Your task to perform on an android device: Do I have any events today? Image 0: 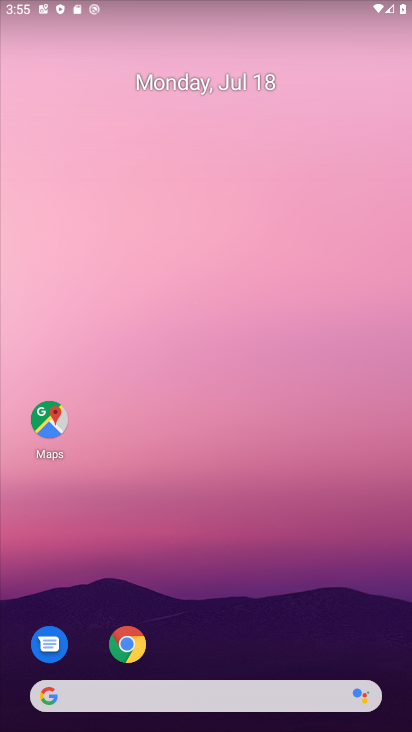
Step 0: drag from (386, 642) to (354, 204)
Your task to perform on an android device: Do I have any events today? Image 1: 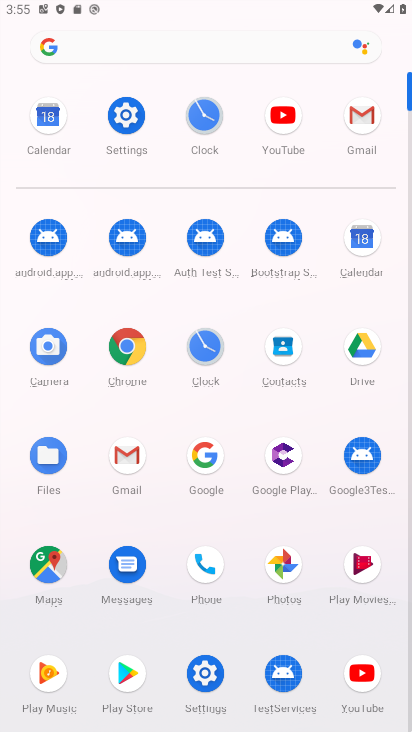
Step 1: click (362, 238)
Your task to perform on an android device: Do I have any events today? Image 2: 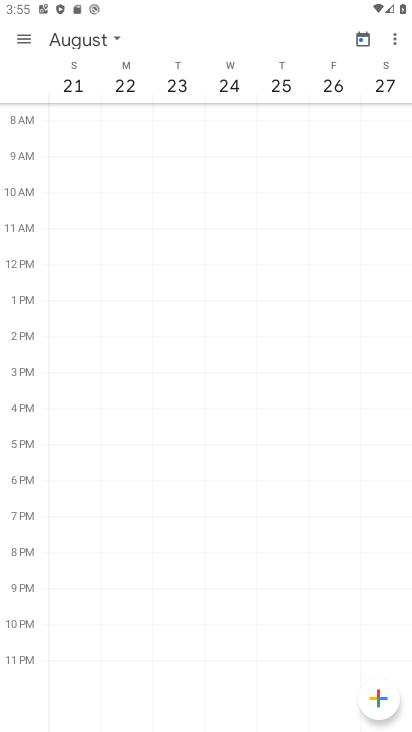
Step 2: click (22, 36)
Your task to perform on an android device: Do I have any events today? Image 3: 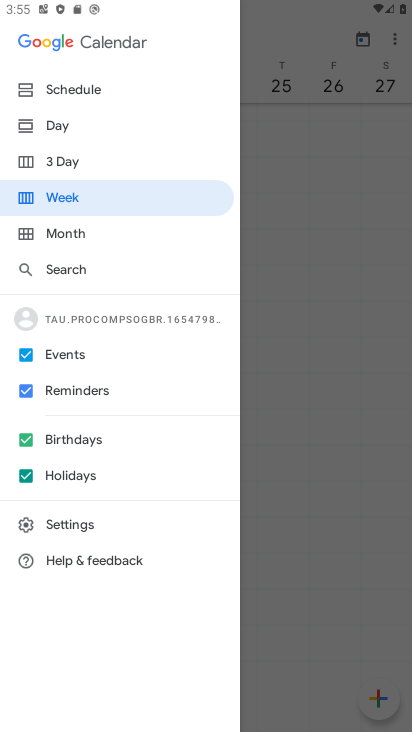
Step 3: click (47, 122)
Your task to perform on an android device: Do I have any events today? Image 4: 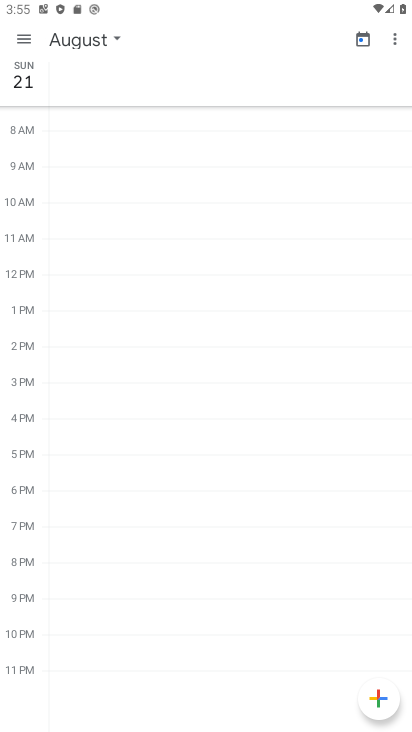
Step 4: click (116, 33)
Your task to perform on an android device: Do I have any events today? Image 5: 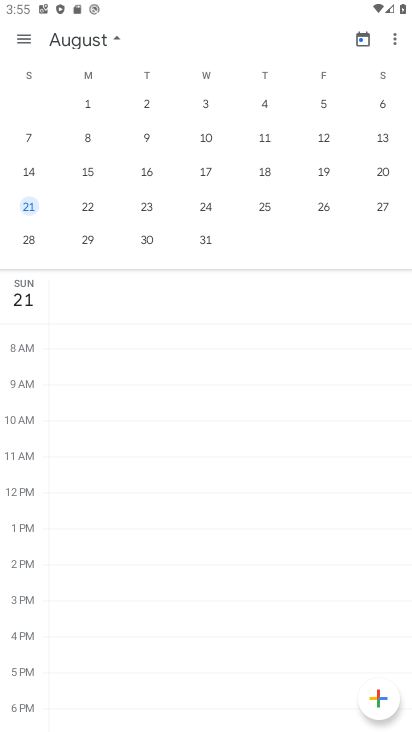
Step 5: drag from (26, 204) to (382, 185)
Your task to perform on an android device: Do I have any events today? Image 6: 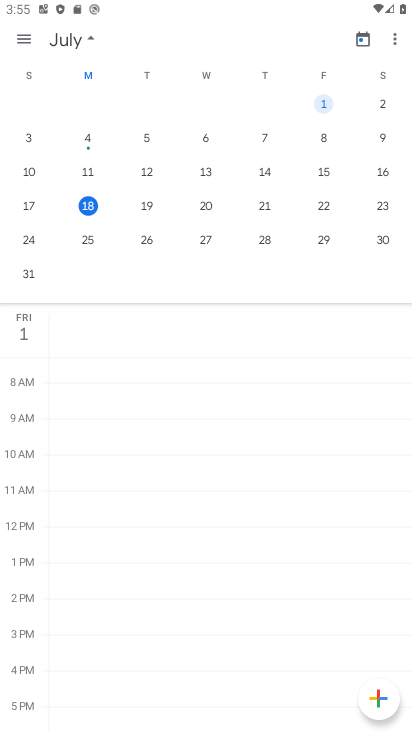
Step 6: click (88, 205)
Your task to perform on an android device: Do I have any events today? Image 7: 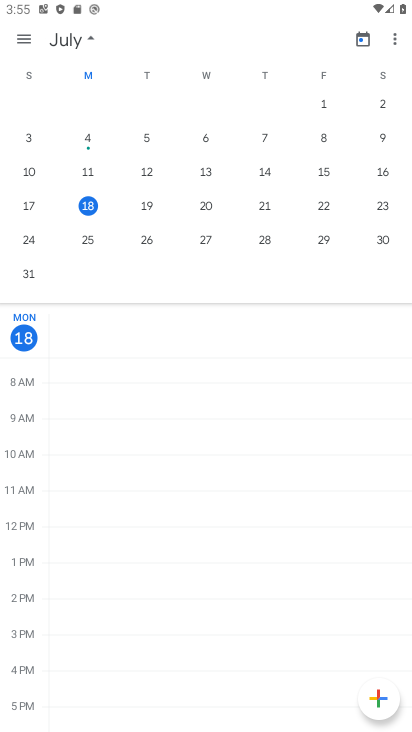
Step 7: task complete